Your task to perform on an android device: Open the Play Movies app and select the watchlist tab. Image 0: 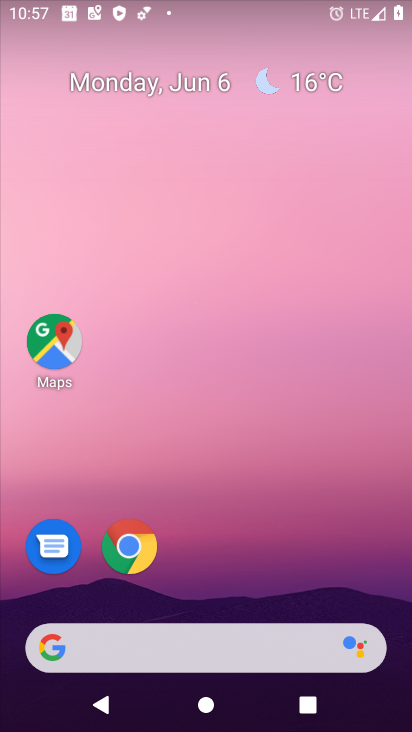
Step 0: drag from (200, 611) to (245, 211)
Your task to perform on an android device: Open the Play Movies app and select the watchlist tab. Image 1: 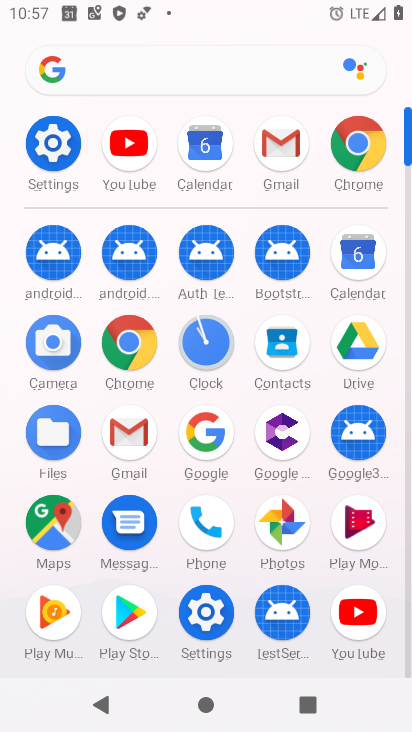
Step 1: click (351, 535)
Your task to perform on an android device: Open the Play Movies app and select the watchlist tab. Image 2: 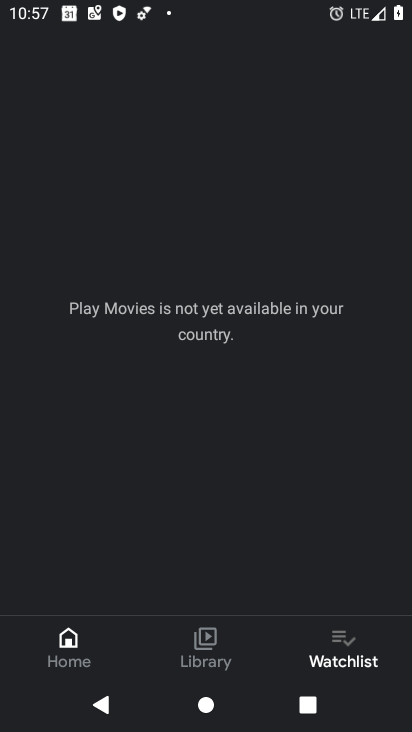
Step 2: task complete